Your task to perform on an android device: Search for vegetarian restaurants on Maps Image 0: 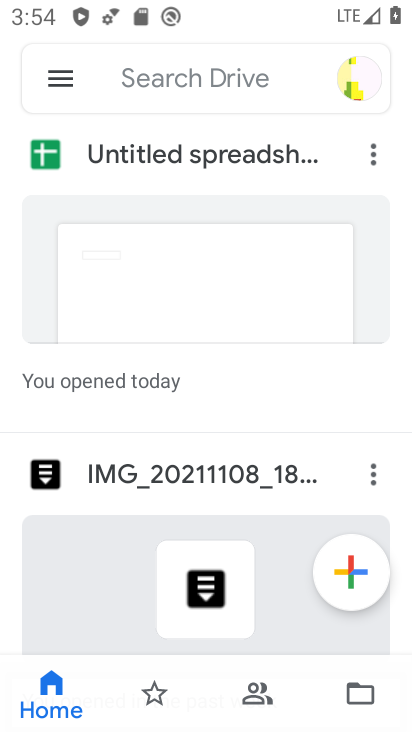
Step 0: press home button
Your task to perform on an android device: Search for vegetarian restaurants on Maps Image 1: 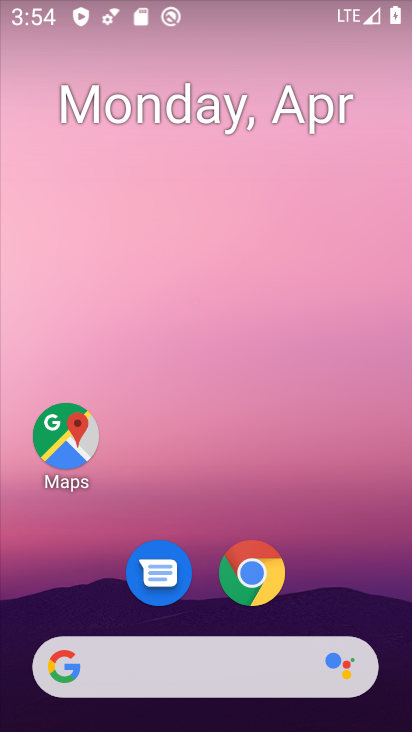
Step 1: drag from (332, 589) to (356, 97)
Your task to perform on an android device: Search for vegetarian restaurants on Maps Image 2: 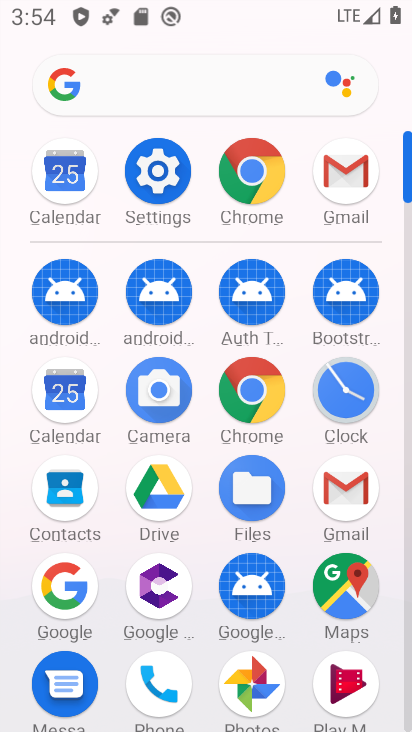
Step 2: click (341, 596)
Your task to perform on an android device: Search for vegetarian restaurants on Maps Image 3: 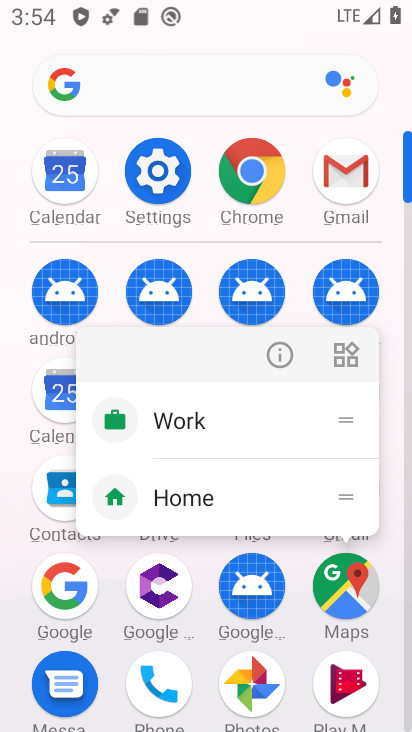
Step 3: click (341, 596)
Your task to perform on an android device: Search for vegetarian restaurants on Maps Image 4: 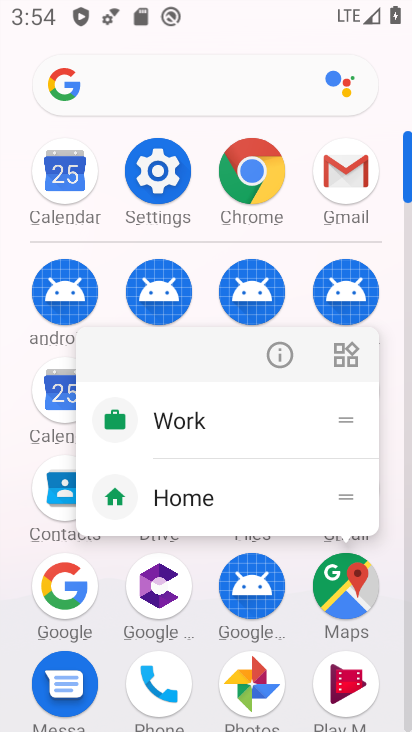
Step 4: click (341, 596)
Your task to perform on an android device: Search for vegetarian restaurants on Maps Image 5: 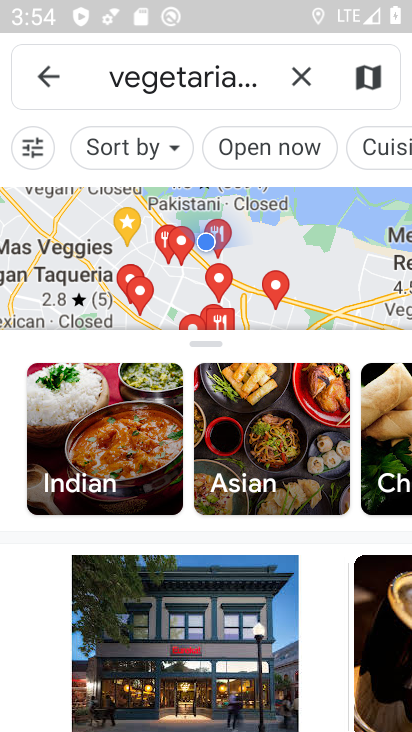
Step 5: task complete